Your task to perform on an android device: Go to Google maps Image 0: 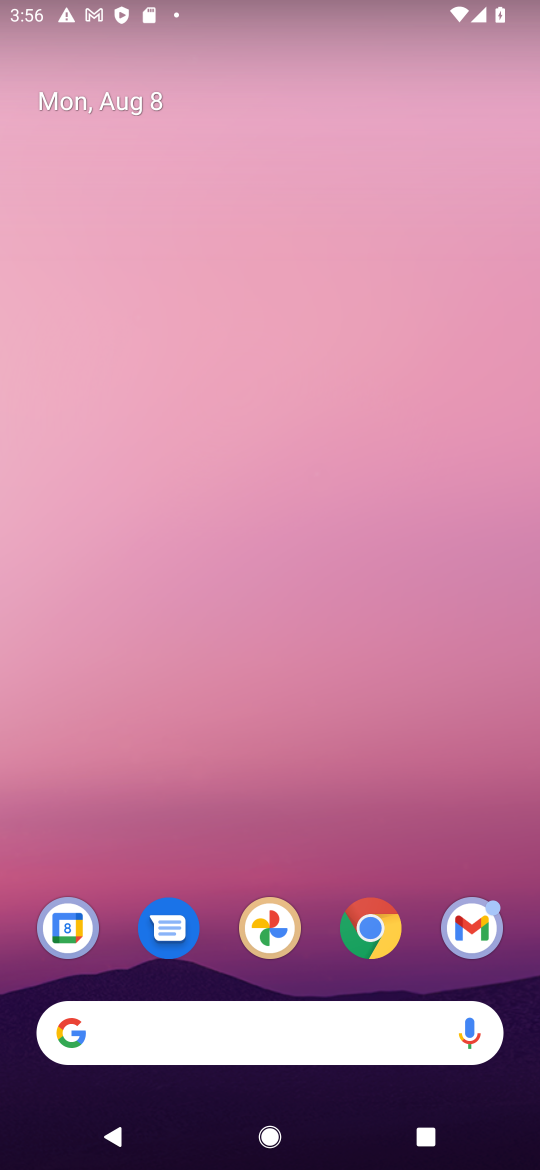
Step 0: drag from (292, 815) to (232, 145)
Your task to perform on an android device: Go to Google maps Image 1: 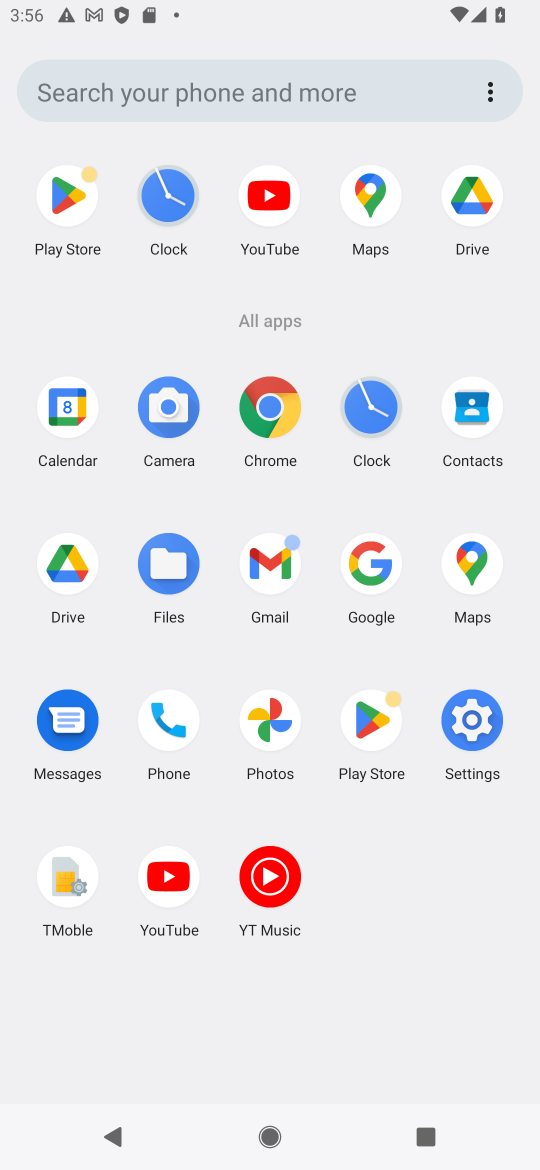
Step 1: click (359, 209)
Your task to perform on an android device: Go to Google maps Image 2: 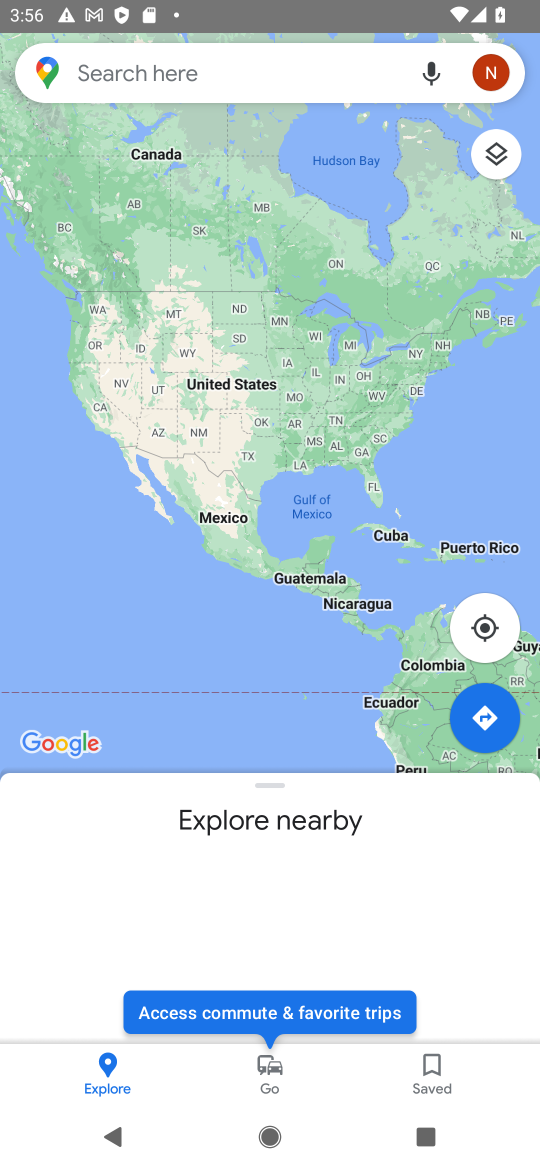
Step 2: task complete